Your task to perform on an android device: Go to accessibility settings Image 0: 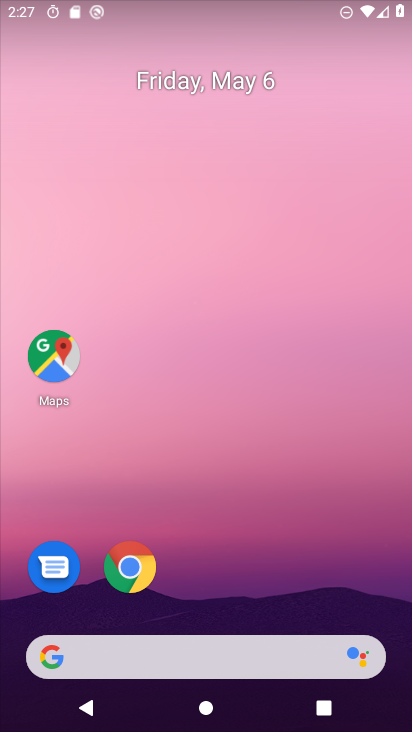
Step 0: drag from (251, 643) to (269, 121)
Your task to perform on an android device: Go to accessibility settings Image 1: 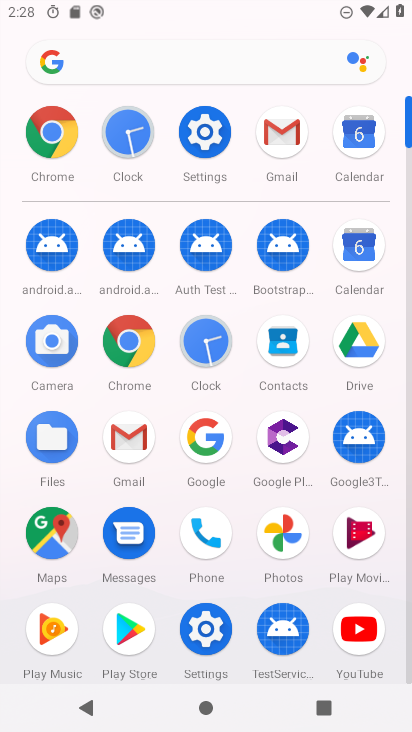
Step 1: click (209, 130)
Your task to perform on an android device: Go to accessibility settings Image 2: 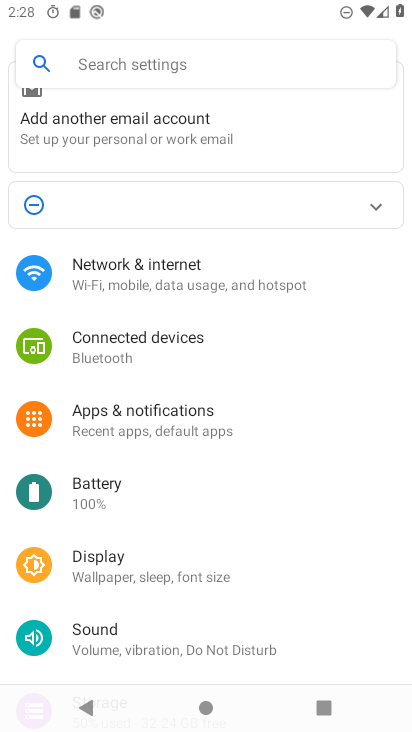
Step 2: click (163, 69)
Your task to perform on an android device: Go to accessibility settings Image 3: 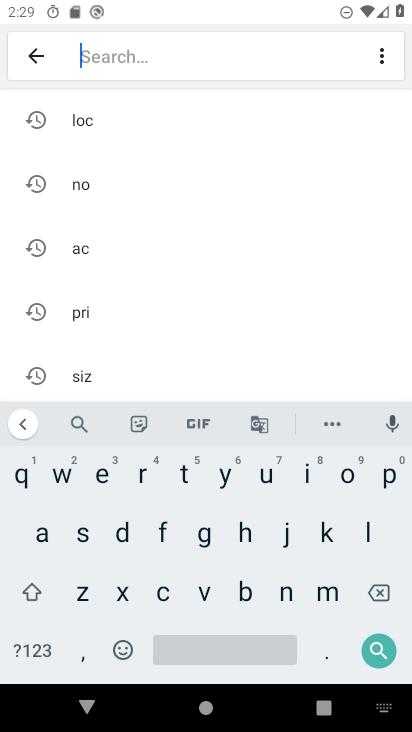
Step 3: click (101, 260)
Your task to perform on an android device: Go to accessibility settings Image 4: 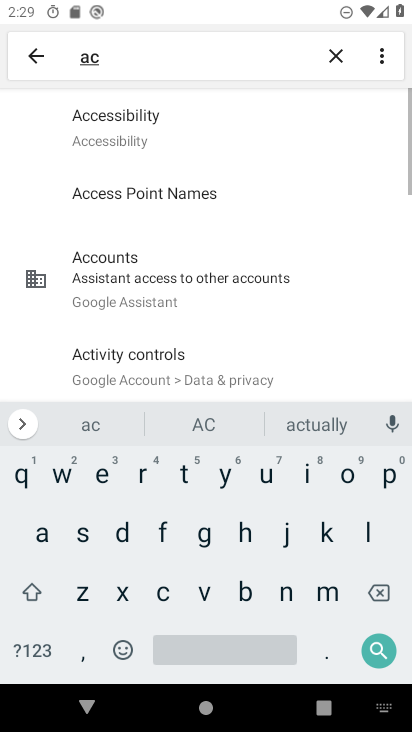
Step 4: click (167, 130)
Your task to perform on an android device: Go to accessibility settings Image 5: 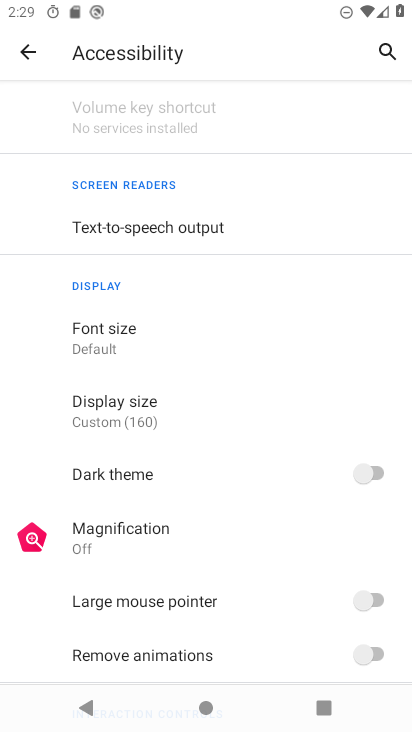
Step 5: task complete